Your task to perform on an android device: Empty the shopping cart on costco. Add logitech g933 to the cart on costco Image 0: 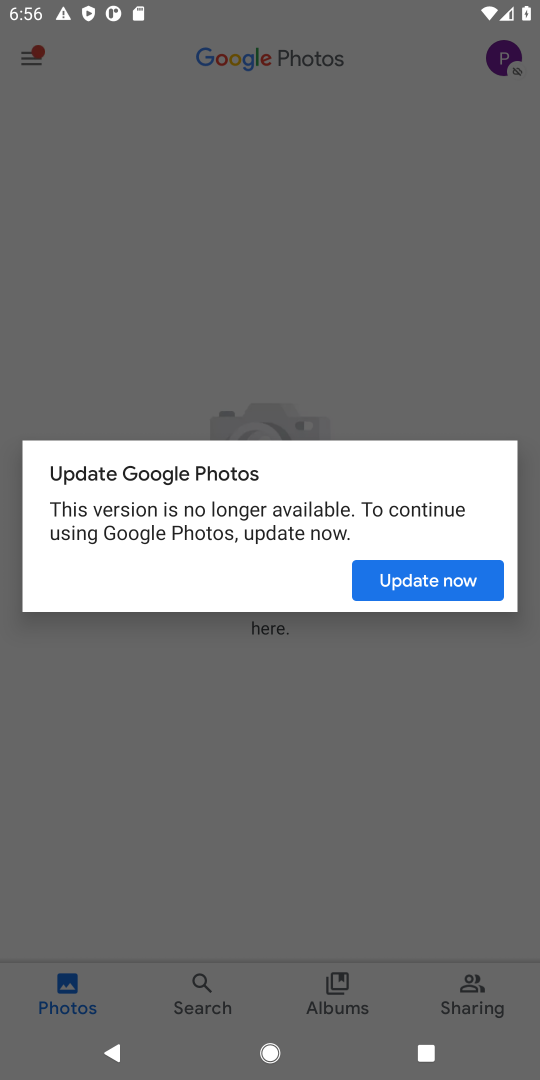
Step 0: press home button
Your task to perform on an android device: Empty the shopping cart on costco. Add logitech g933 to the cart on costco Image 1: 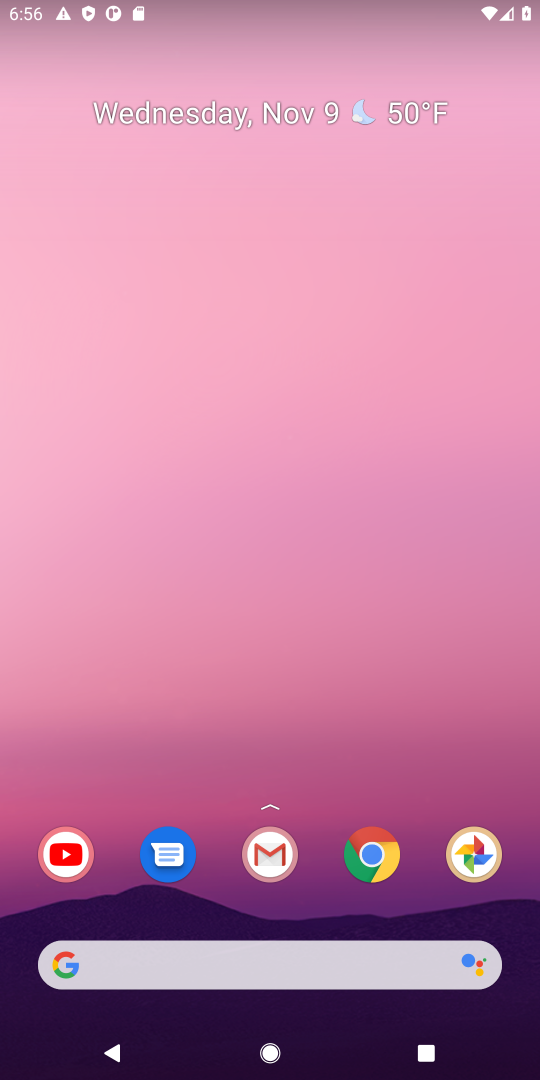
Step 1: click (308, 950)
Your task to perform on an android device: Empty the shopping cart on costco. Add logitech g933 to the cart on costco Image 2: 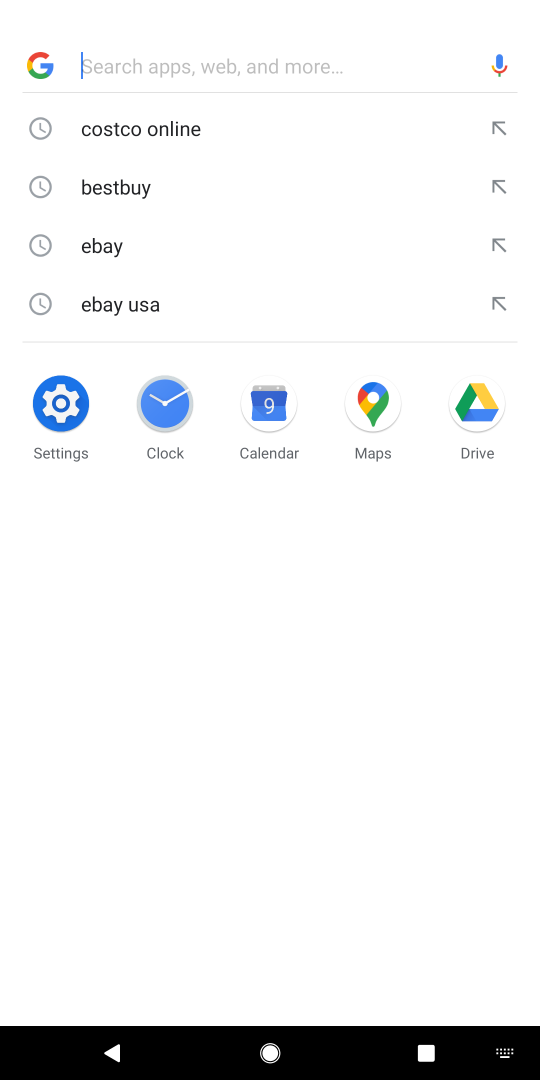
Step 2: type "costco"
Your task to perform on an android device: Empty the shopping cart on costco. Add logitech g933 to the cart on costco Image 3: 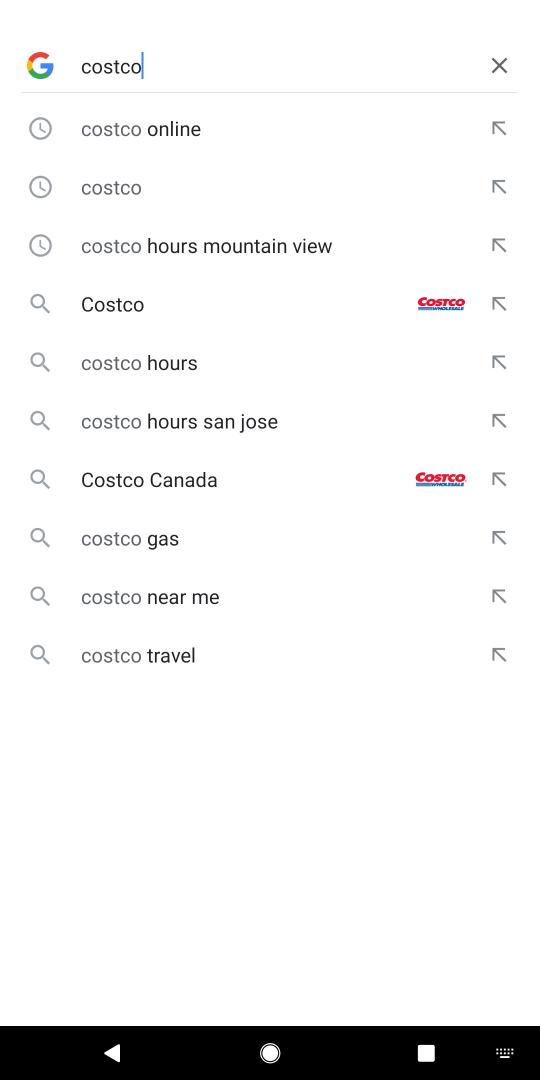
Step 3: click (141, 311)
Your task to perform on an android device: Empty the shopping cart on costco. Add logitech g933 to the cart on costco Image 4: 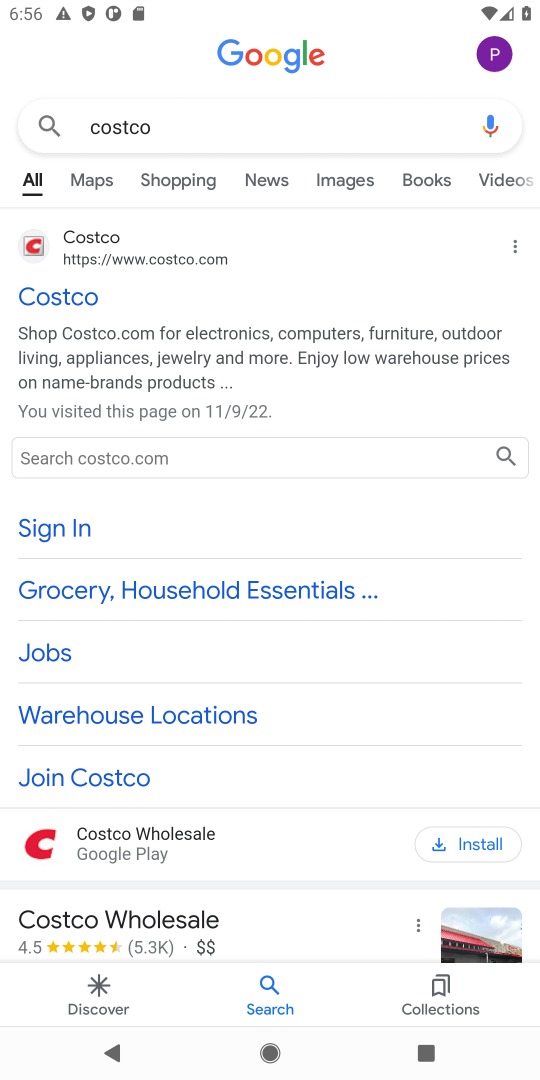
Step 4: click (38, 294)
Your task to perform on an android device: Empty the shopping cart on costco. Add logitech g933 to the cart on costco Image 5: 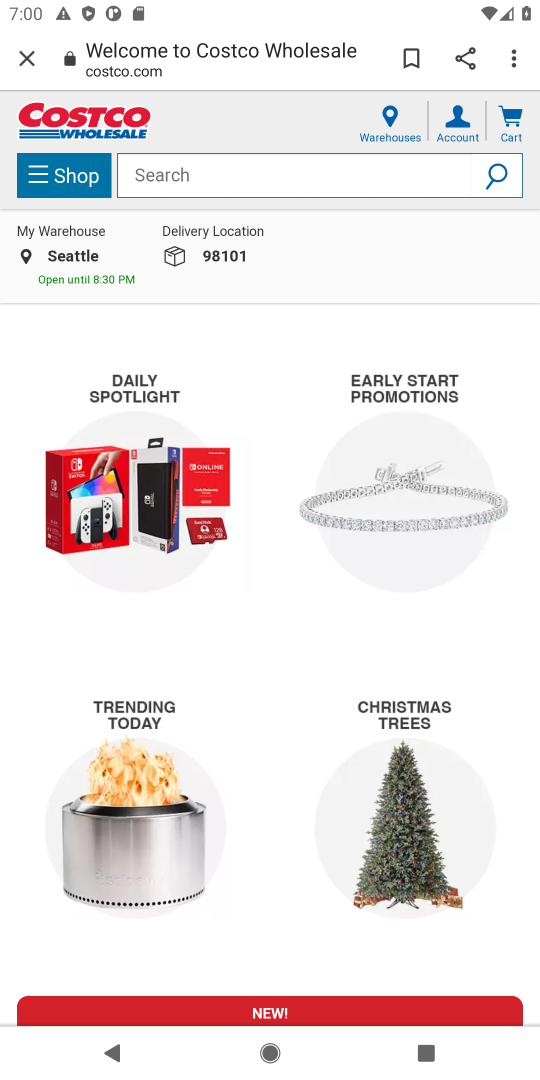
Step 5: task complete